Your task to perform on an android device: remove spam from my inbox in the gmail app Image 0: 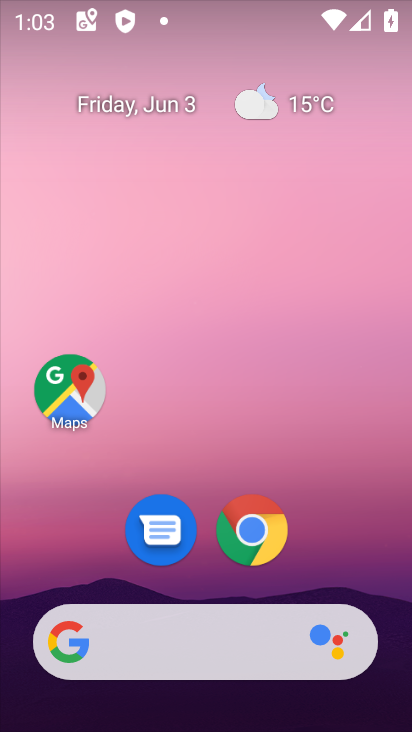
Step 0: drag from (333, 525) to (312, 176)
Your task to perform on an android device: remove spam from my inbox in the gmail app Image 1: 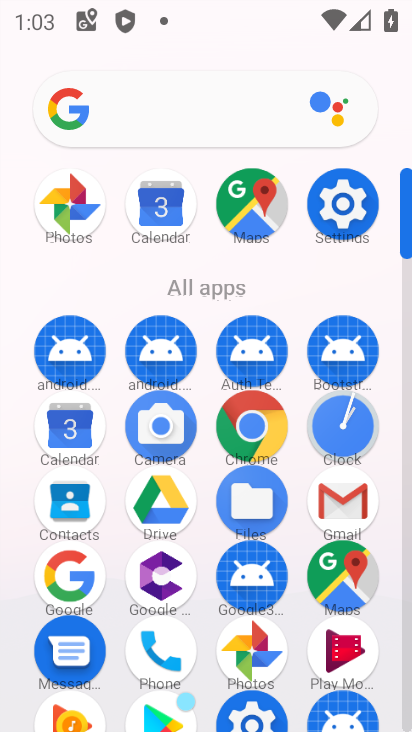
Step 1: click (354, 510)
Your task to perform on an android device: remove spam from my inbox in the gmail app Image 2: 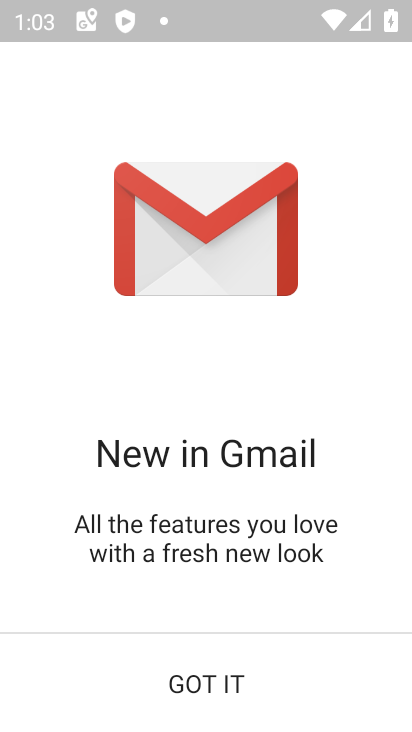
Step 2: click (219, 687)
Your task to perform on an android device: remove spam from my inbox in the gmail app Image 3: 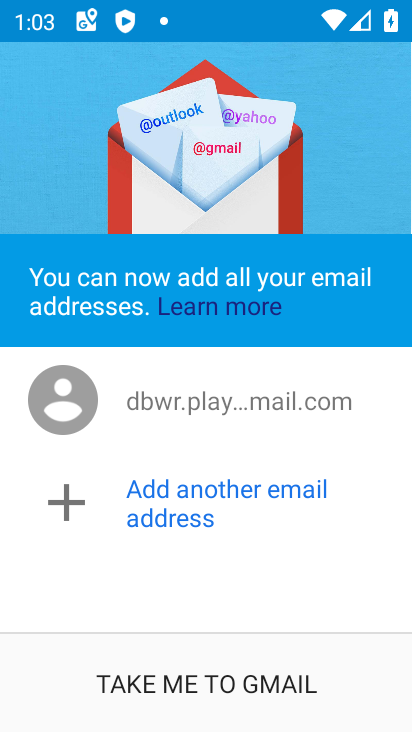
Step 3: click (219, 687)
Your task to perform on an android device: remove spam from my inbox in the gmail app Image 4: 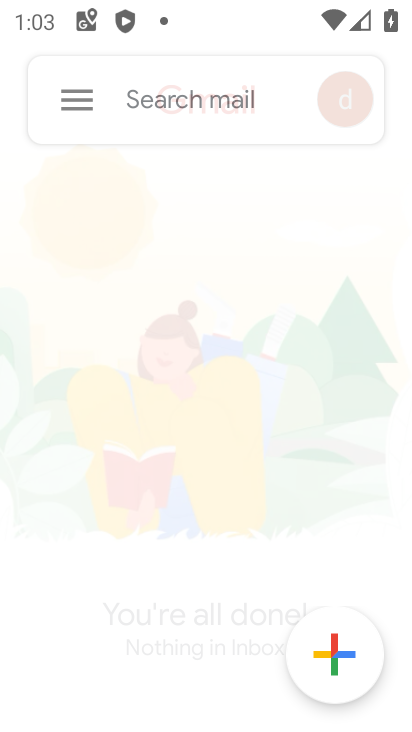
Step 4: click (68, 98)
Your task to perform on an android device: remove spam from my inbox in the gmail app Image 5: 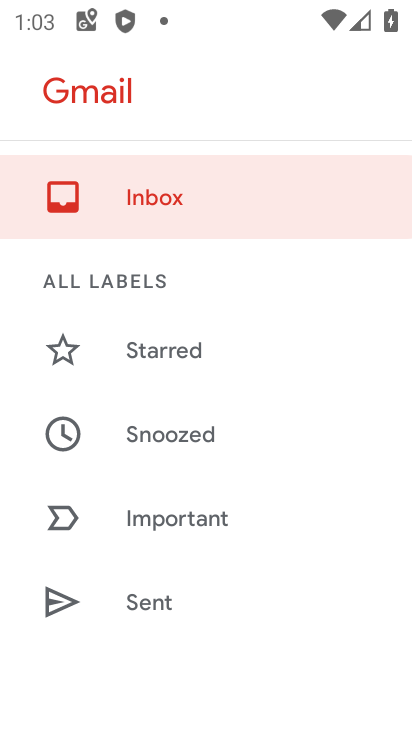
Step 5: drag from (325, 604) to (329, 169)
Your task to perform on an android device: remove spam from my inbox in the gmail app Image 6: 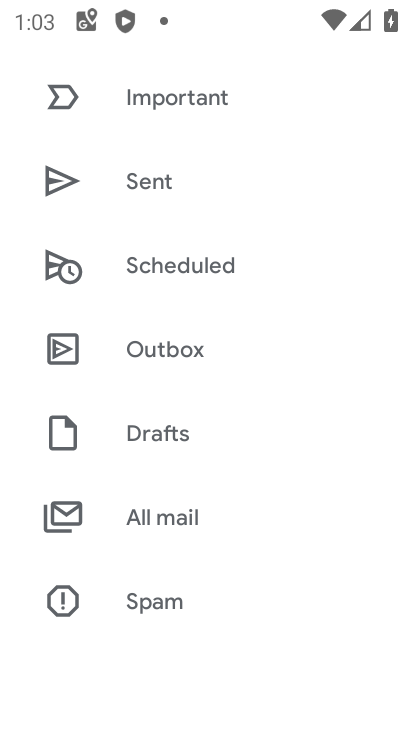
Step 6: click (179, 599)
Your task to perform on an android device: remove spam from my inbox in the gmail app Image 7: 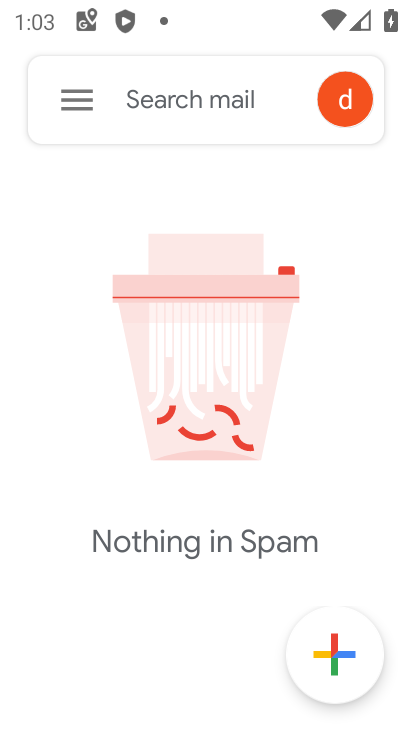
Step 7: task complete